Your task to perform on an android device: Add "apple airpods pro" to the cart on newegg.com, then select checkout. Image 0: 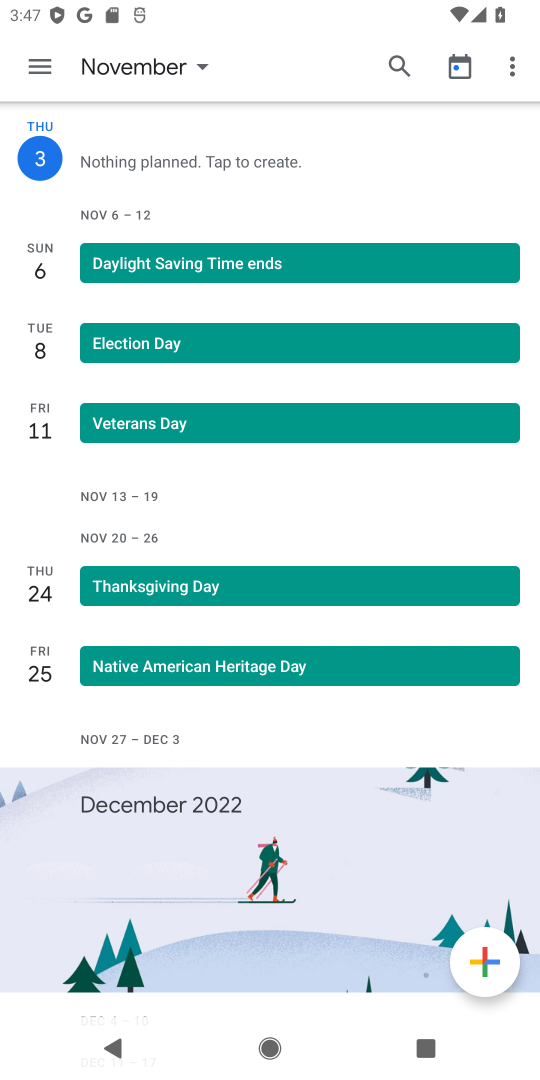
Step 0: press home button
Your task to perform on an android device: Add "apple airpods pro" to the cart on newegg.com, then select checkout. Image 1: 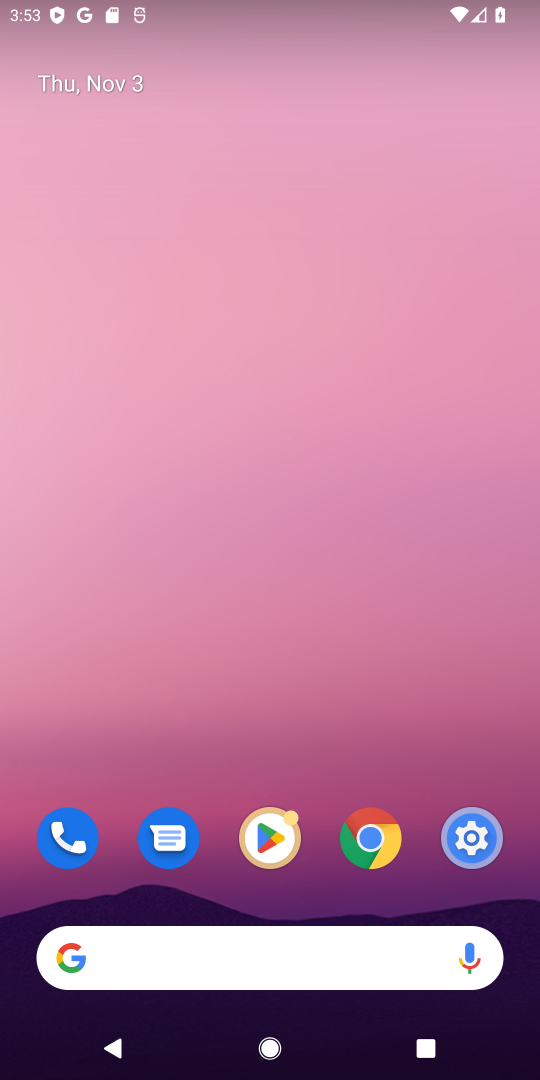
Step 1: task complete